Your task to perform on an android device: Go to Maps Image 0: 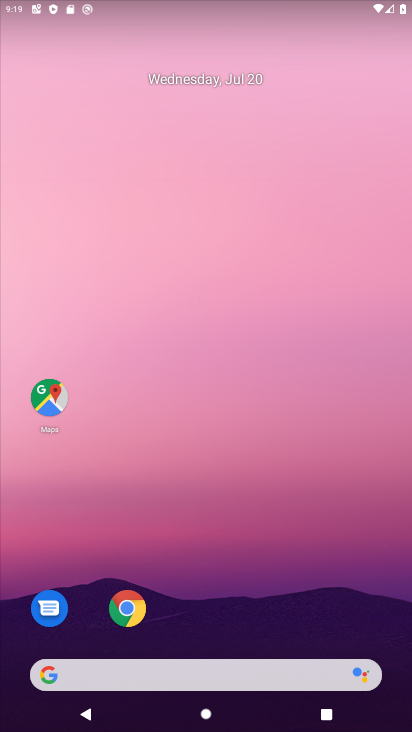
Step 0: click (42, 398)
Your task to perform on an android device: Go to Maps Image 1: 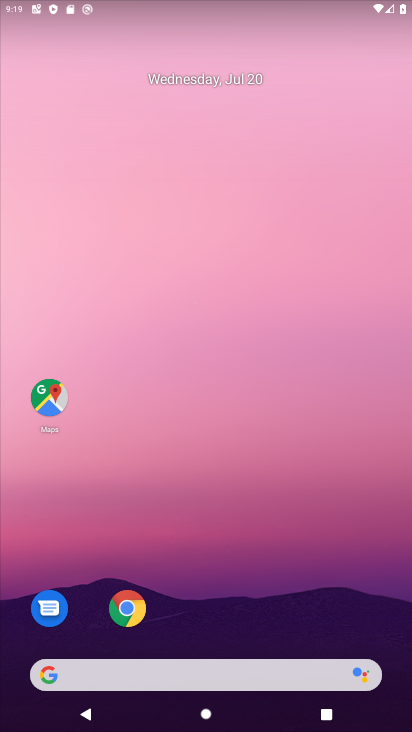
Step 1: click (42, 398)
Your task to perform on an android device: Go to Maps Image 2: 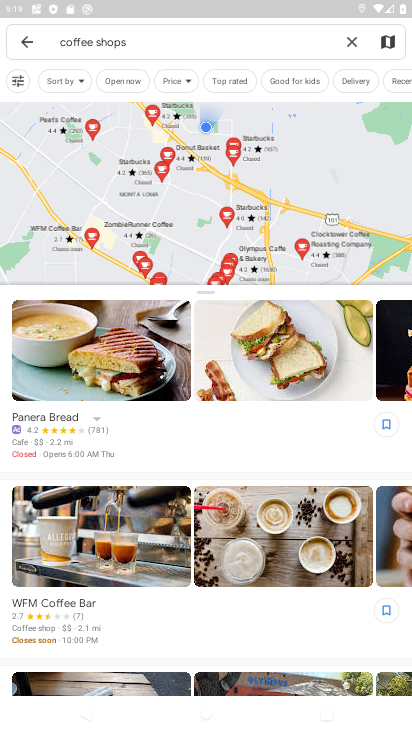
Step 2: click (355, 41)
Your task to perform on an android device: Go to Maps Image 3: 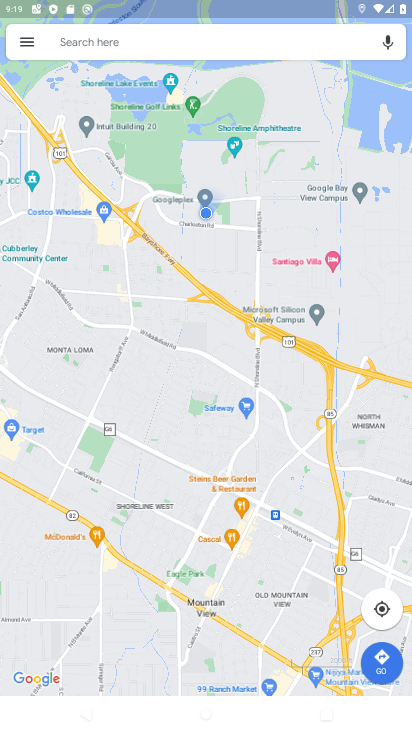
Step 3: task complete